Your task to perform on an android device: turn off translation in the chrome app Image 0: 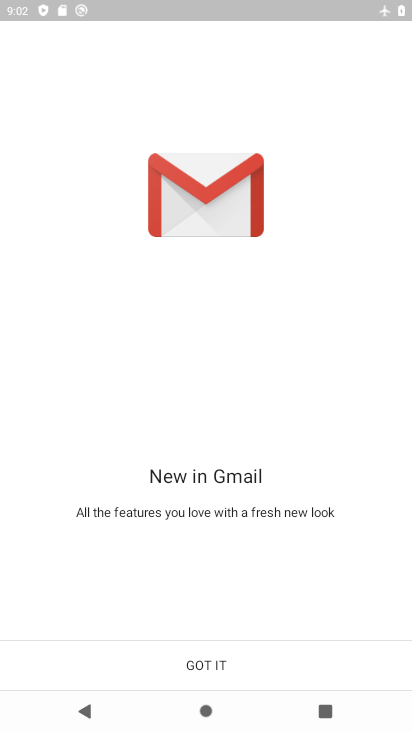
Step 0: press home button
Your task to perform on an android device: turn off translation in the chrome app Image 1: 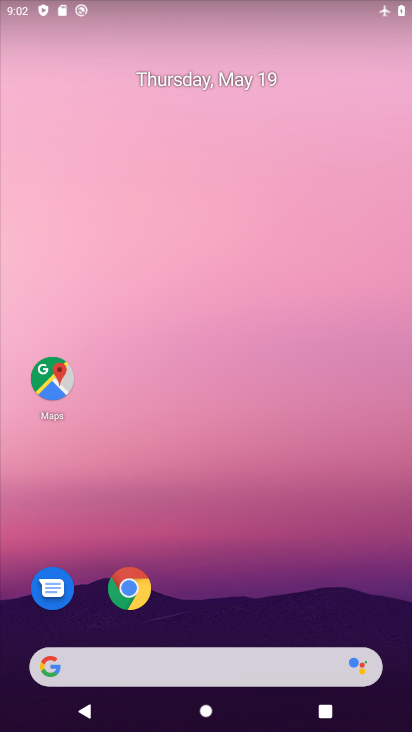
Step 1: click (115, 591)
Your task to perform on an android device: turn off translation in the chrome app Image 2: 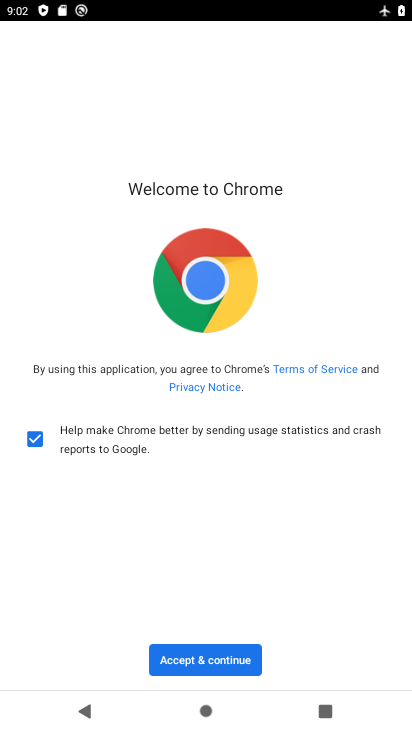
Step 2: click (214, 646)
Your task to perform on an android device: turn off translation in the chrome app Image 3: 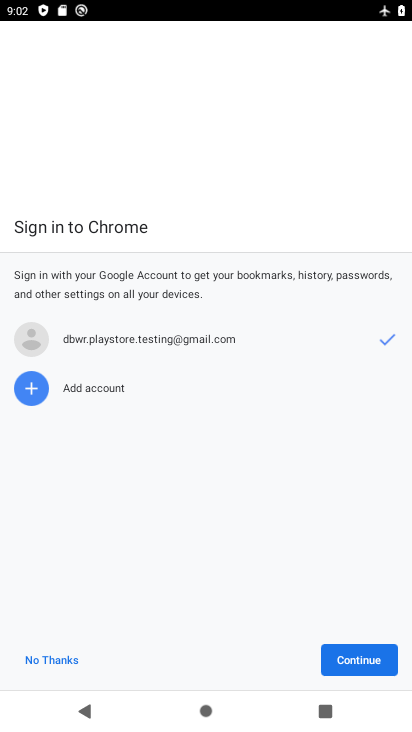
Step 3: click (345, 662)
Your task to perform on an android device: turn off translation in the chrome app Image 4: 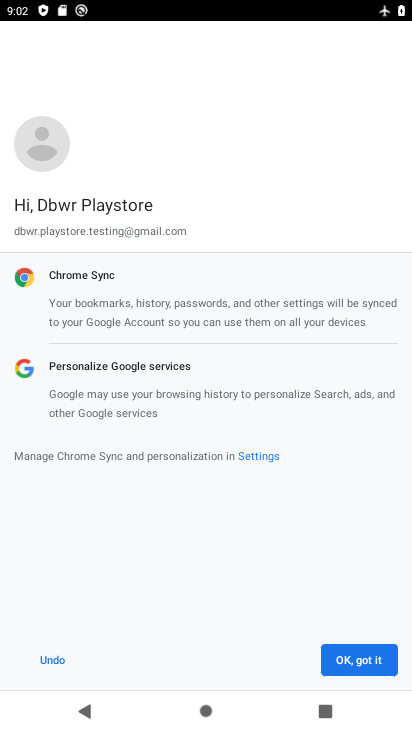
Step 4: click (336, 662)
Your task to perform on an android device: turn off translation in the chrome app Image 5: 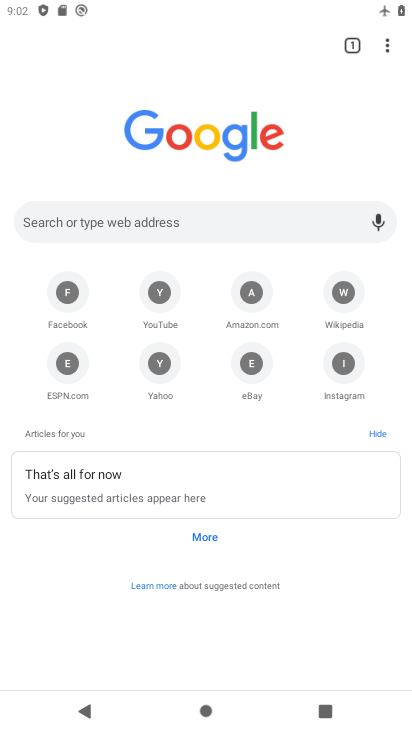
Step 5: click (379, 40)
Your task to perform on an android device: turn off translation in the chrome app Image 6: 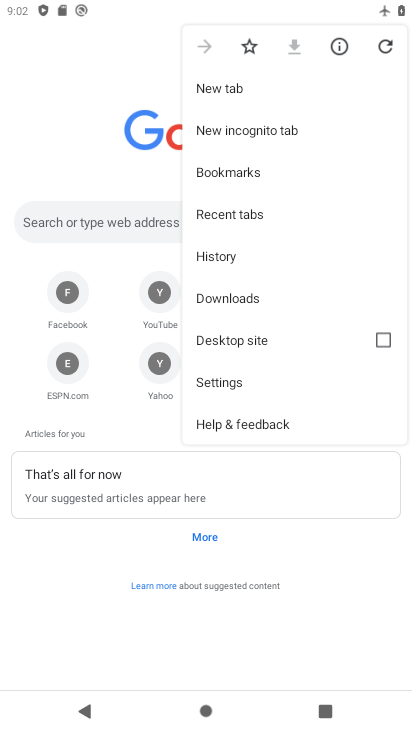
Step 6: click (247, 380)
Your task to perform on an android device: turn off translation in the chrome app Image 7: 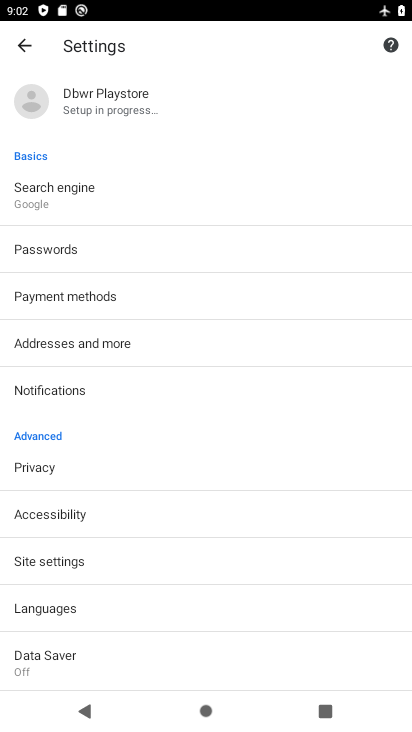
Step 7: click (127, 596)
Your task to perform on an android device: turn off translation in the chrome app Image 8: 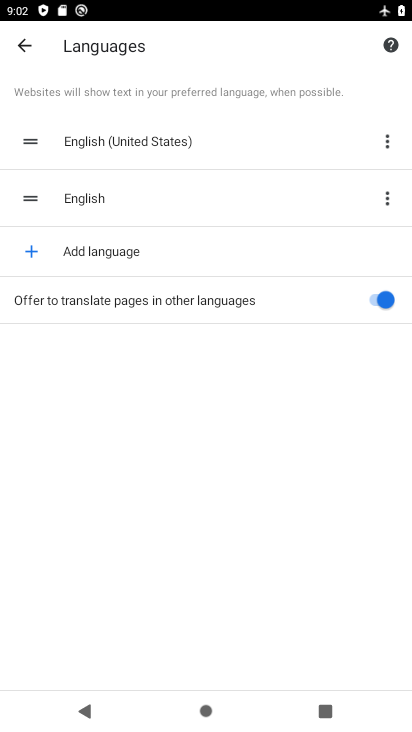
Step 8: drag from (264, 506) to (257, 291)
Your task to perform on an android device: turn off translation in the chrome app Image 9: 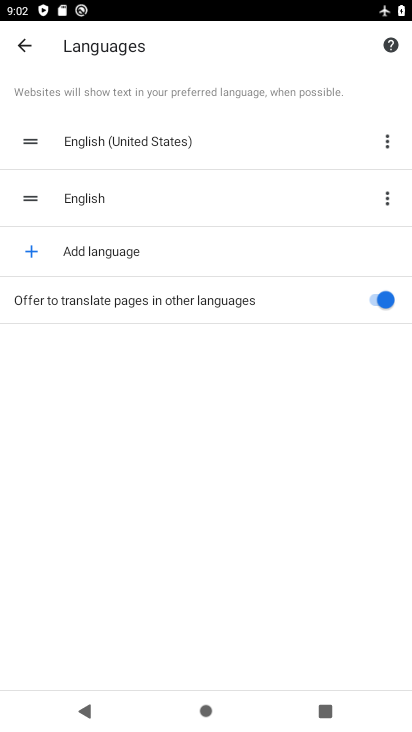
Step 9: click (373, 314)
Your task to perform on an android device: turn off translation in the chrome app Image 10: 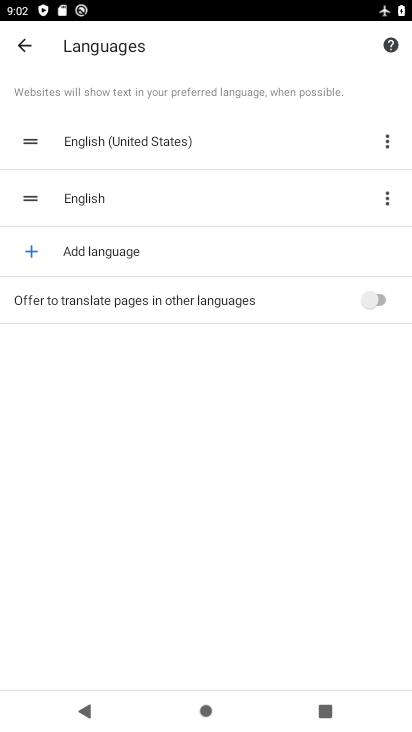
Step 10: task complete